Your task to perform on an android device: change alarm snooze length Image 0: 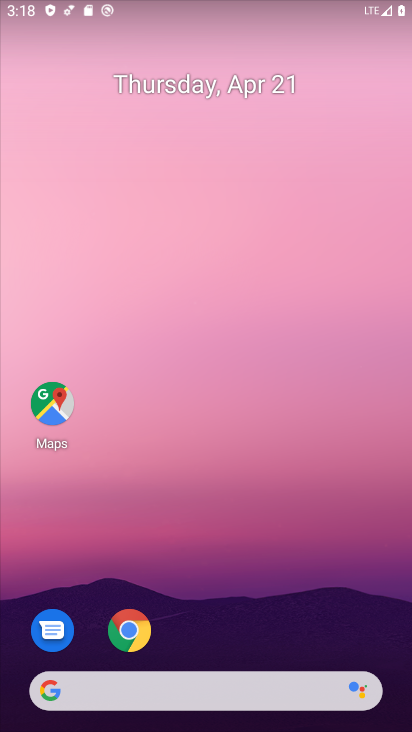
Step 0: drag from (250, 726) to (214, 362)
Your task to perform on an android device: change alarm snooze length Image 1: 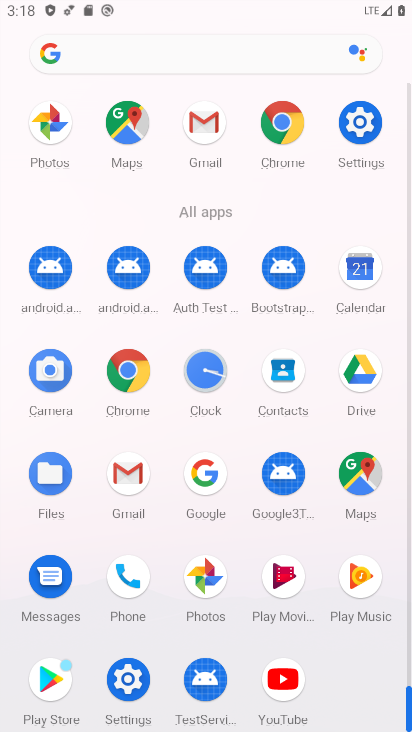
Step 1: click (204, 385)
Your task to perform on an android device: change alarm snooze length Image 2: 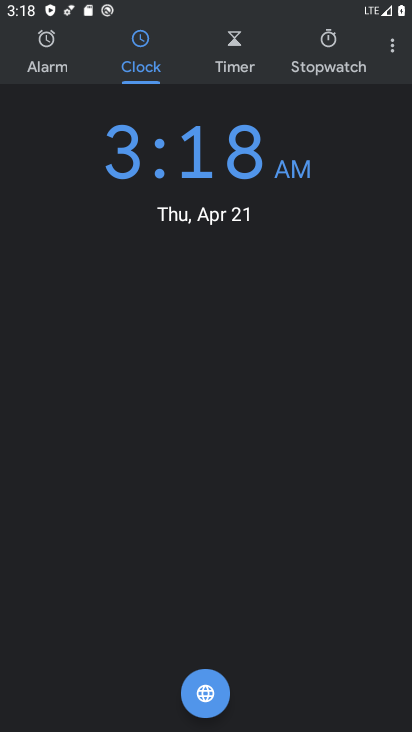
Step 2: click (51, 60)
Your task to perform on an android device: change alarm snooze length Image 3: 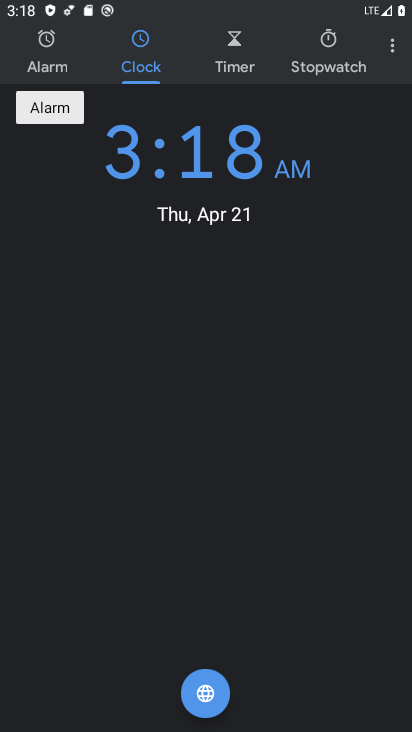
Step 3: click (51, 60)
Your task to perform on an android device: change alarm snooze length Image 4: 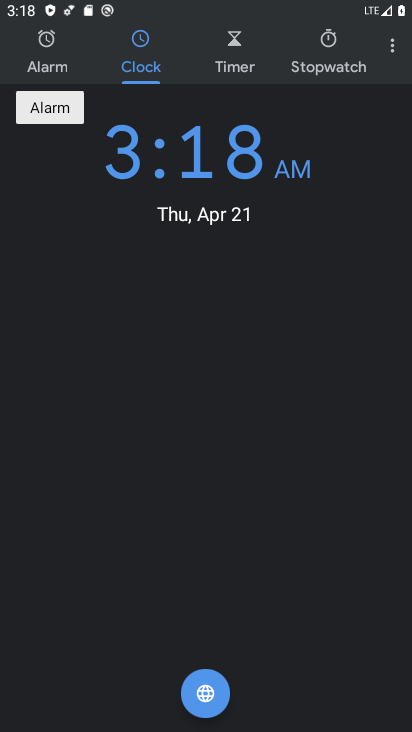
Step 4: click (51, 60)
Your task to perform on an android device: change alarm snooze length Image 5: 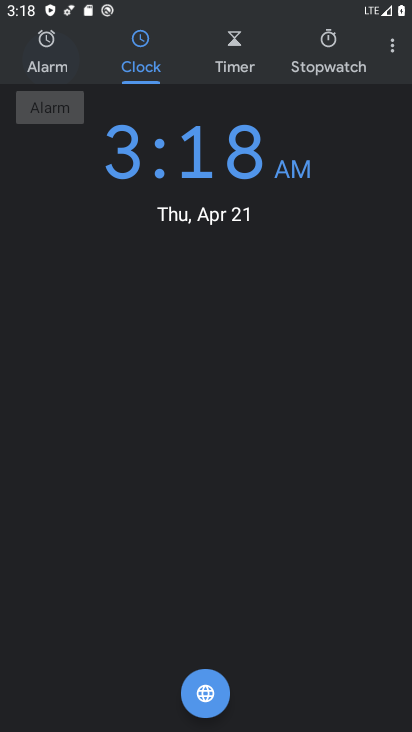
Step 5: click (51, 60)
Your task to perform on an android device: change alarm snooze length Image 6: 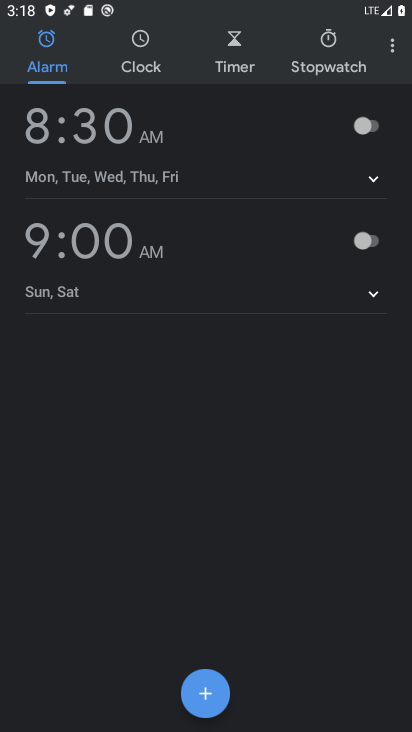
Step 6: click (395, 51)
Your task to perform on an android device: change alarm snooze length Image 7: 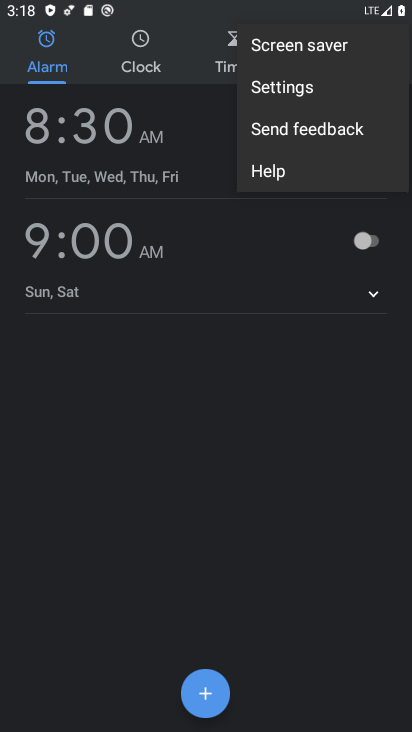
Step 7: click (290, 105)
Your task to perform on an android device: change alarm snooze length Image 8: 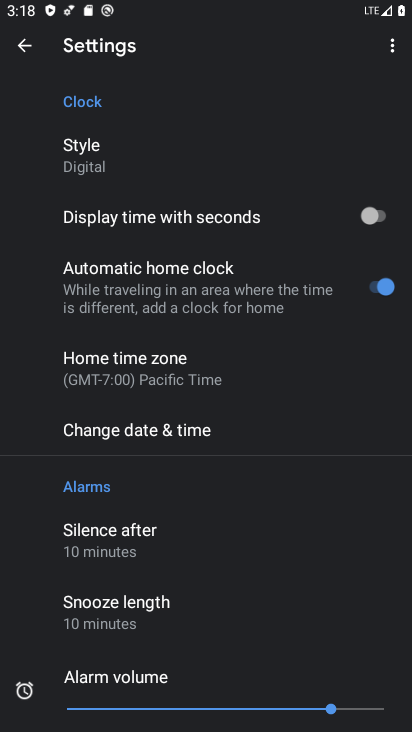
Step 8: drag from (175, 547) to (263, 263)
Your task to perform on an android device: change alarm snooze length Image 9: 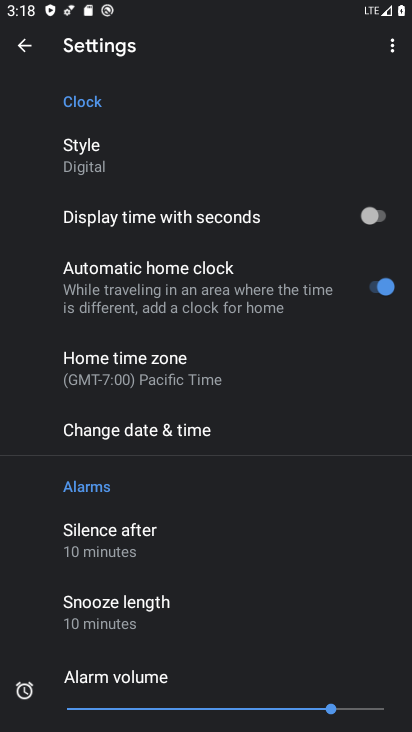
Step 9: click (125, 617)
Your task to perform on an android device: change alarm snooze length Image 10: 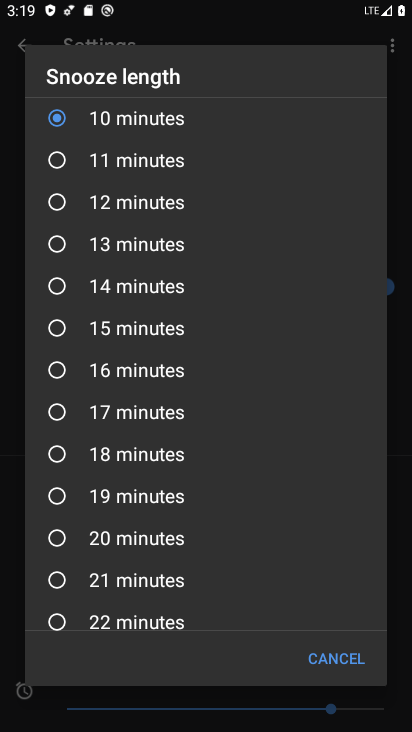
Step 10: click (56, 163)
Your task to perform on an android device: change alarm snooze length Image 11: 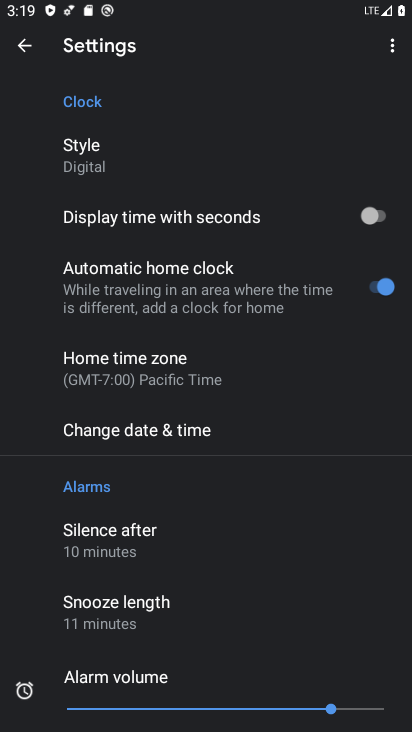
Step 11: task complete